Your task to perform on an android device: Do I have any events today? Image 0: 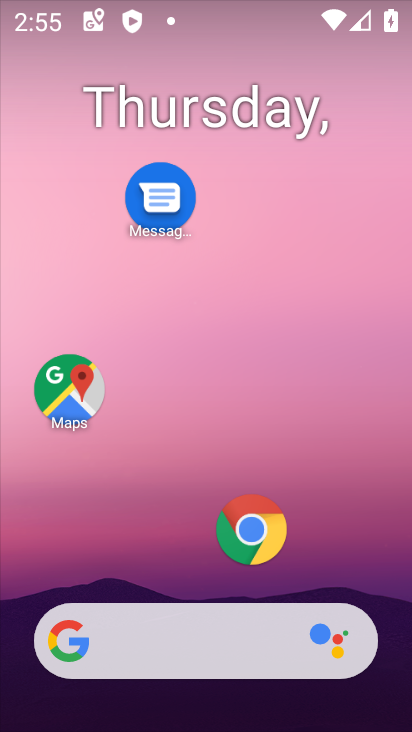
Step 0: drag from (141, 579) to (230, 200)
Your task to perform on an android device: Do I have any events today? Image 1: 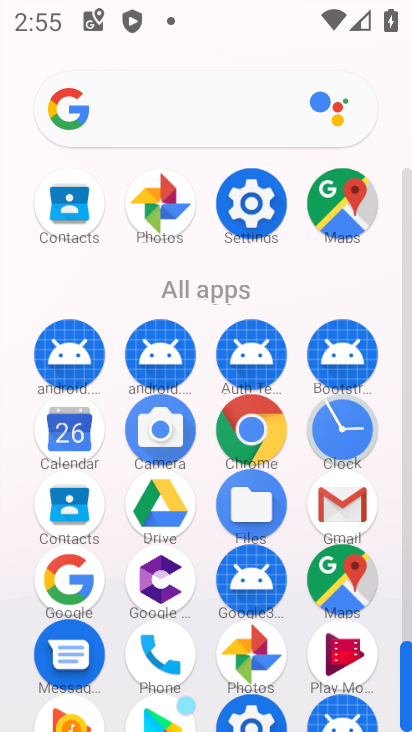
Step 1: click (72, 437)
Your task to perform on an android device: Do I have any events today? Image 2: 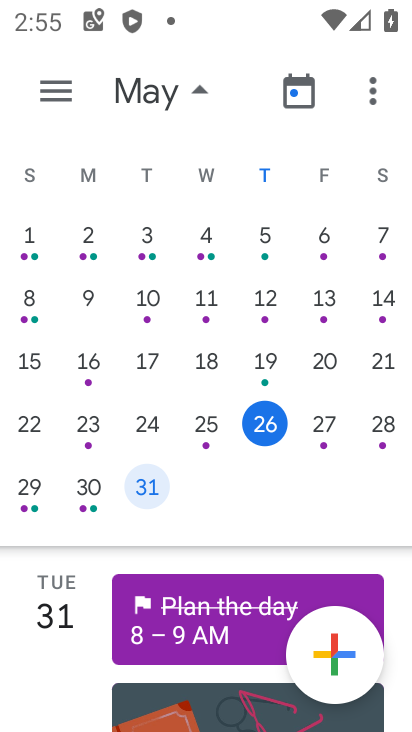
Step 2: click (315, 419)
Your task to perform on an android device: Do I have any events today? Image 3: 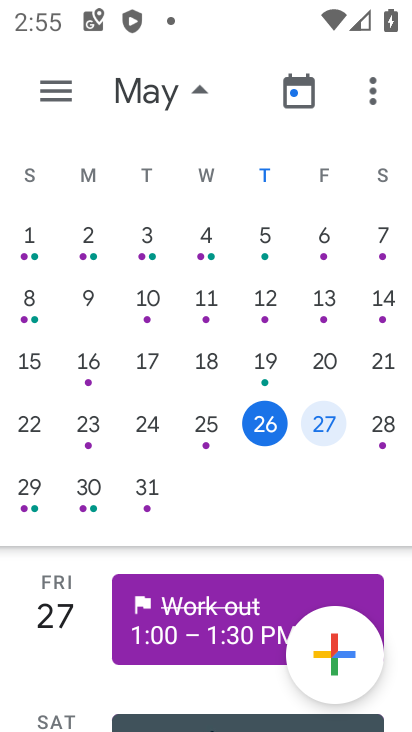
Step 3: task complete